Your task to perform on an android device: toggle data saver in the chrome app Image 0: 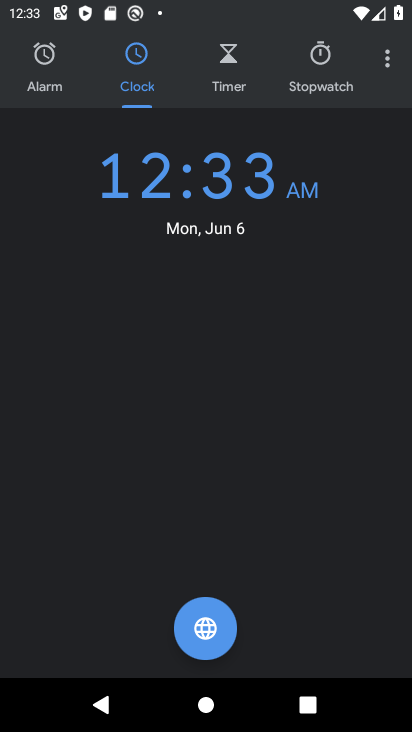
Step 0: press home button
Your task to perform on an android device: toggle data saver in the chrome app Image 1: 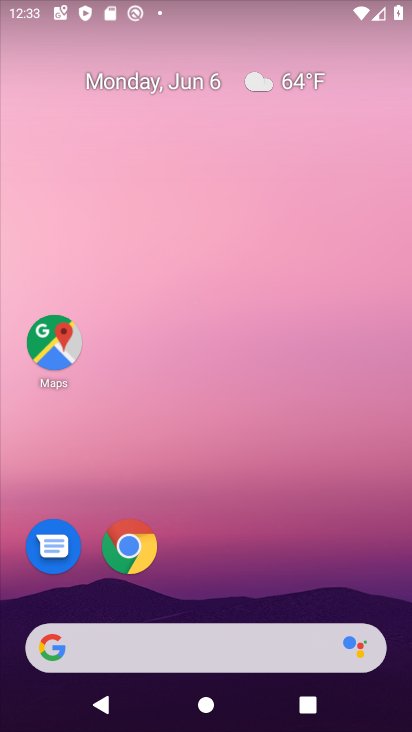
Step 1: click (116, 547)
Your task to perform on an android device: toggle data saver in the chrome app Image 2: 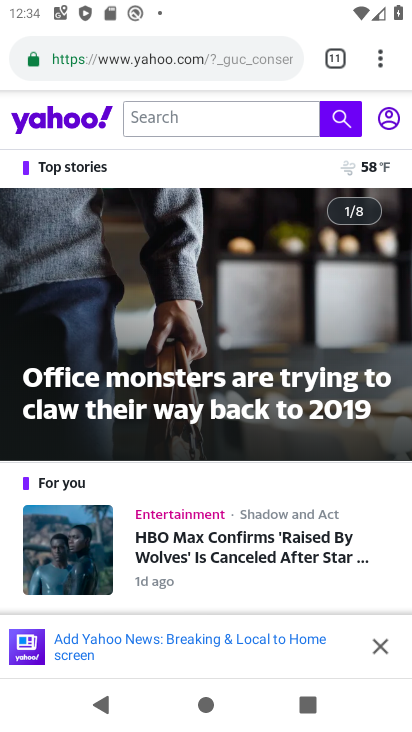
Step 2: click (375, 51)
Your task to perform on an android device: toggle data saver in the chrome app Image 3: 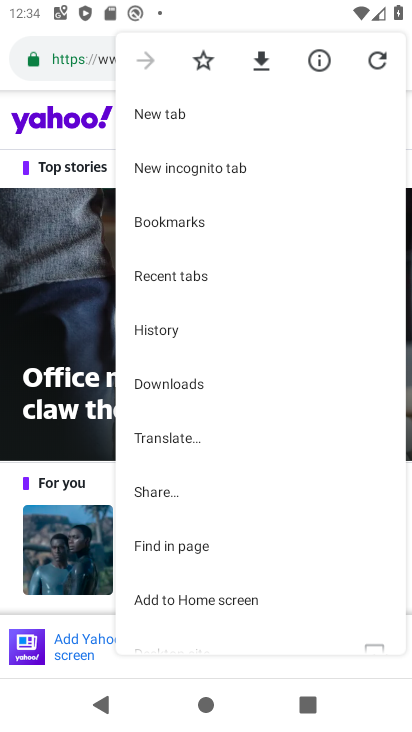
Step 3: drag from (265, 319) to (265, 199)
Your task to perform on an android device: toggle data saver in the chrome app Image 4: 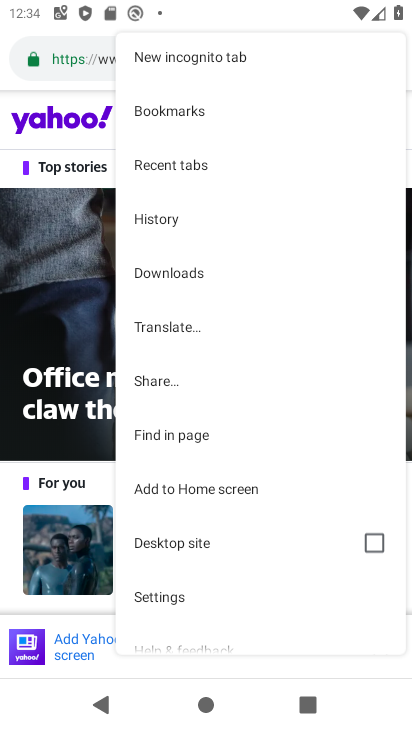
Step 4: click (156, 592)
Your task to perform on an android device: toggle data saver in the chrome app Image 5: 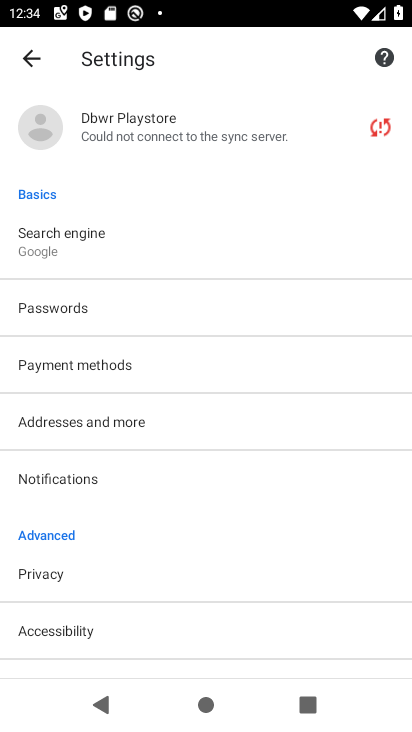
Step 5: drag from (174, 621) to (191, 249)
Your task to perform on an android device: toggle data saver in the chrome app Image 6: 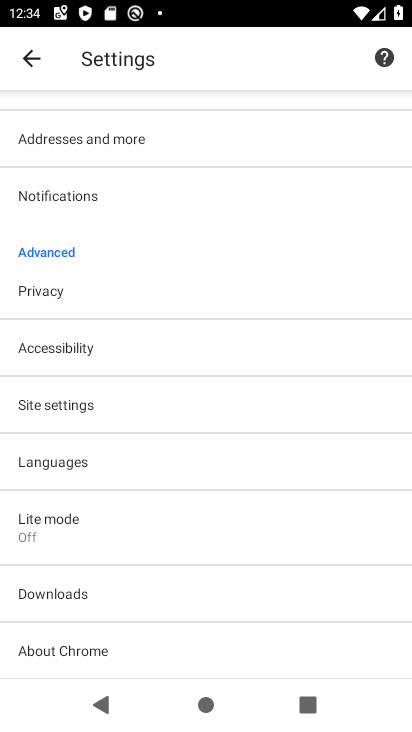
Step 6: click (121, 530)
Your task to perform on an android device: toggle data saver in the chrome app Image 7: 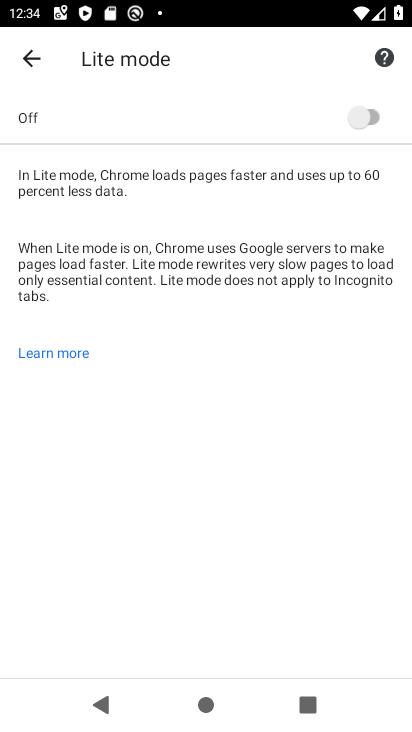
Step 7: click (367, 120)
Your task to perform on an android device: toggle data saver in the chrome app Image 8: 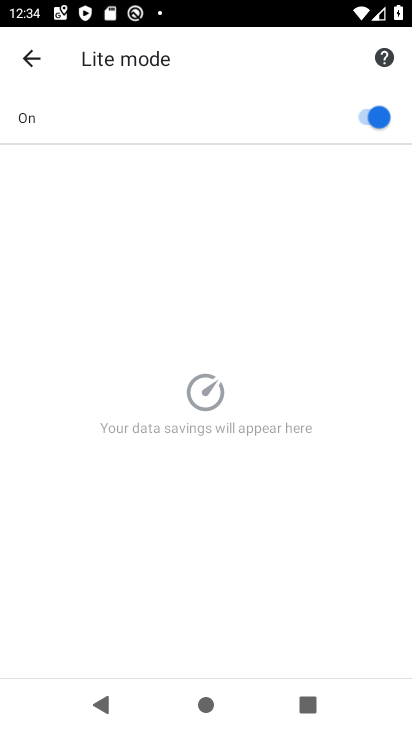
Step 8: task complete